Your task to perform on an android device: Go to network settings Image 0: 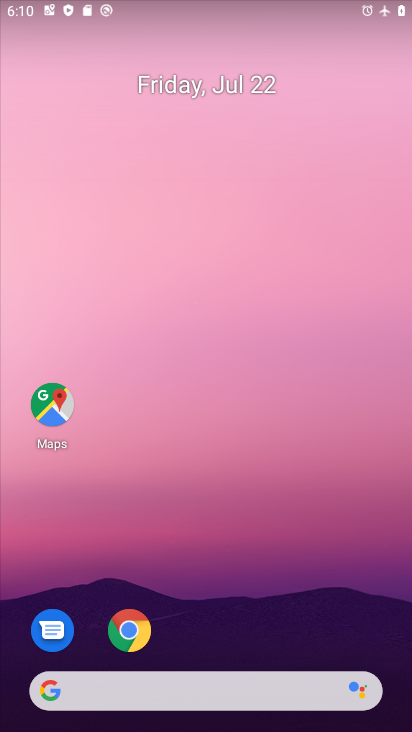
Step 0: drag from (269, 694) to (211, 0)
Your task to perform on an android device: Go to network settings Image 1: 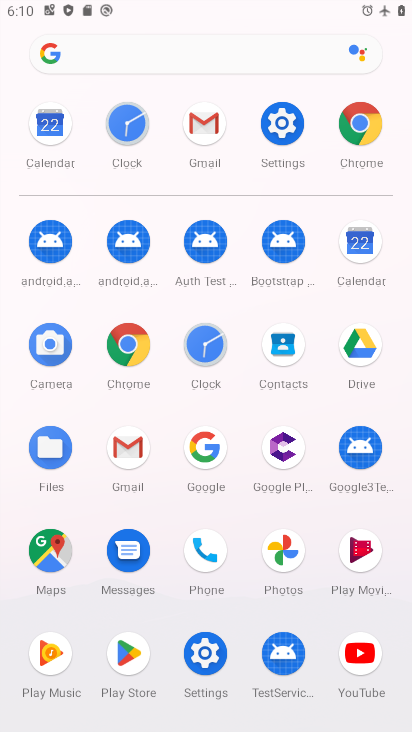
Step 1: click (298, 115)
Your task to perform on an android device: Go to network settings Image 2: 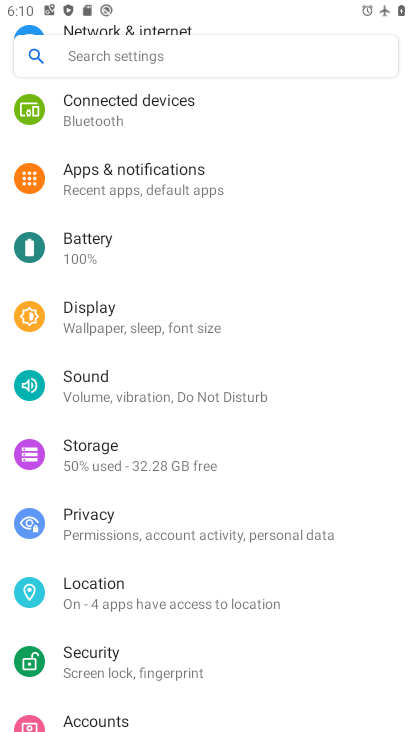
Step 2: drag from (135, 170) to (146, 398)
Your task to perform on an android device: Go to network settings Image 3: 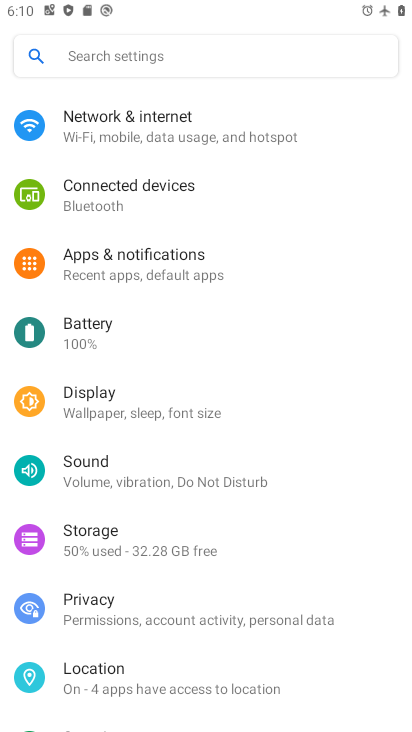
Step 3: click (152, 123)
Your task to perform on an android device: Go to network settings Image 4: 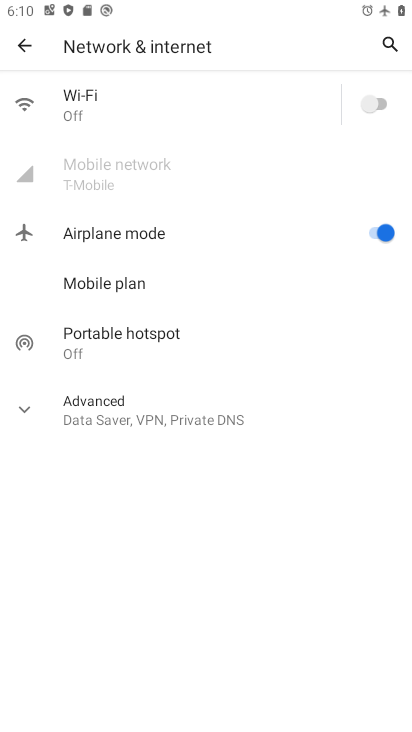
Step 4: task complete